Your task to perform on an android device: When is my next meeting? Image 0: 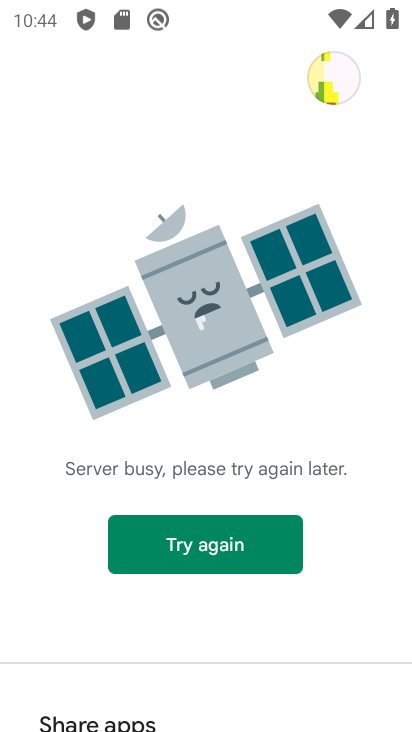
Step 0: press home button
Your task to perform on an android device: When is my next meeting? Image 1: 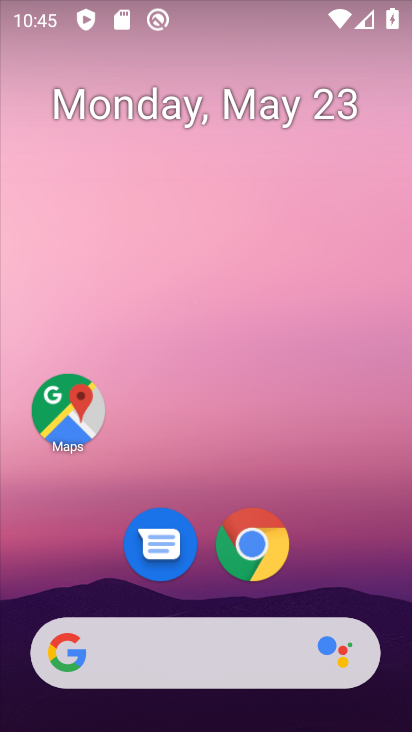
Step 1: drag from (374, 523) to (330, 276)
Your task to perform on an android device: When is my next meeting? Image 2: 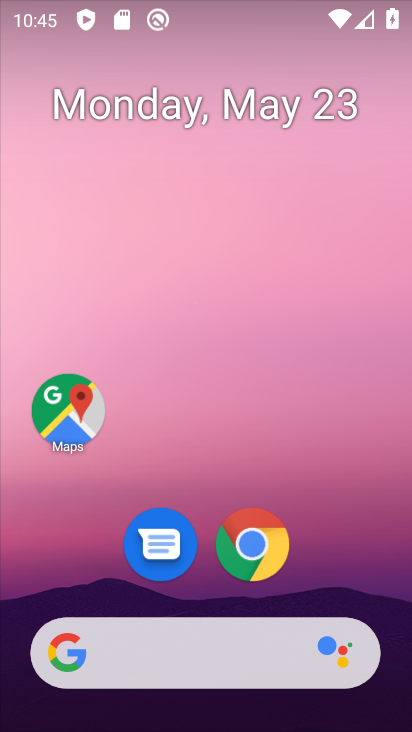
Step 2: drag from (387, 604) to (330, 222)
Your task to perform on an android device: When is my next meeting? Image 3: 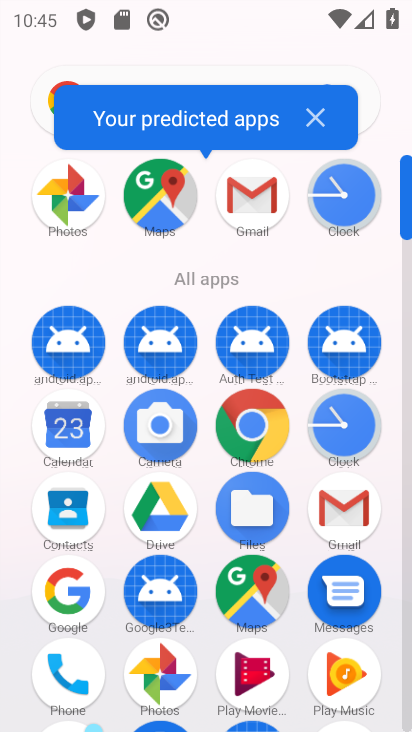
Step 3: click (404, 703)
Your task to perform on an android device: When is my next meeting? Image 4: 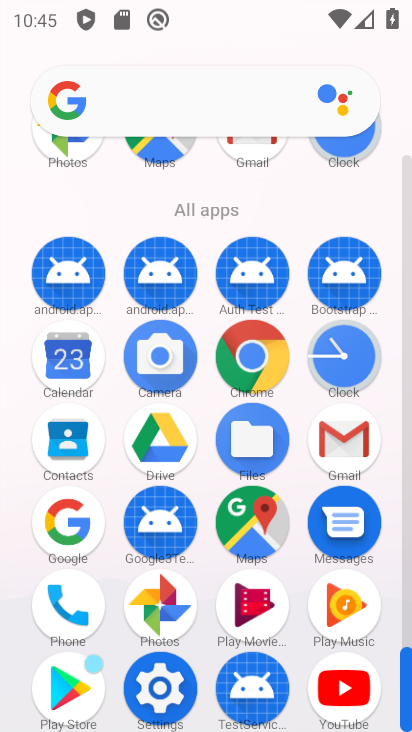
Step 4: click (65, 357)
Your task to perform on an android device: When is my next meeting? Image 5: 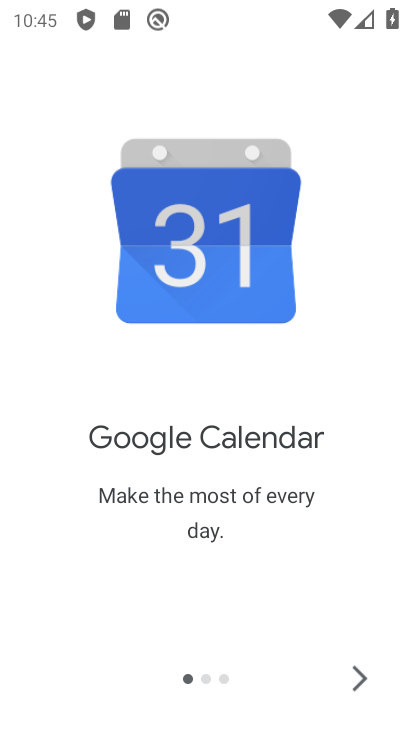
Step 5: click (358, 677)
Your task to perform on an android device: When is my next meeting? Image 6: 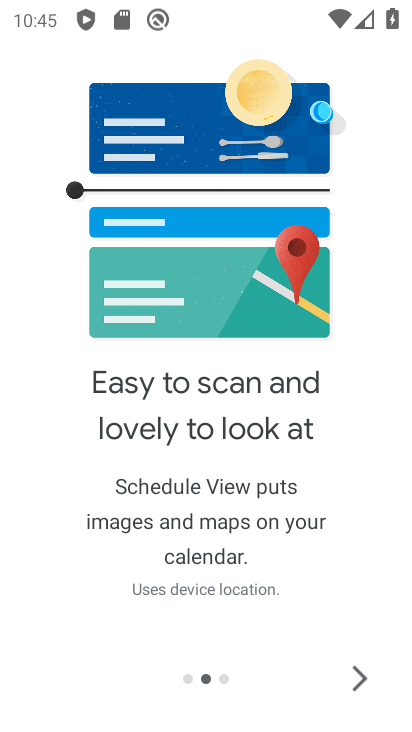
Step 6: click (354, 674)
Your task to perform on an android device: When is my next meeting? Image 7: 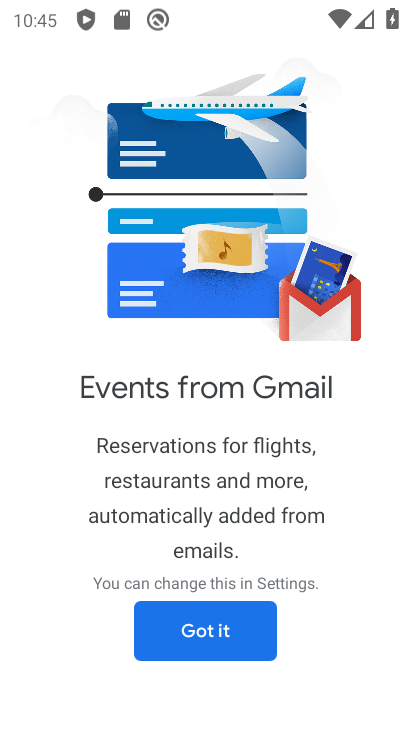
Step 7: click (194, 630)
Your task to perform on an android device: When is my next meeting? Image 8: 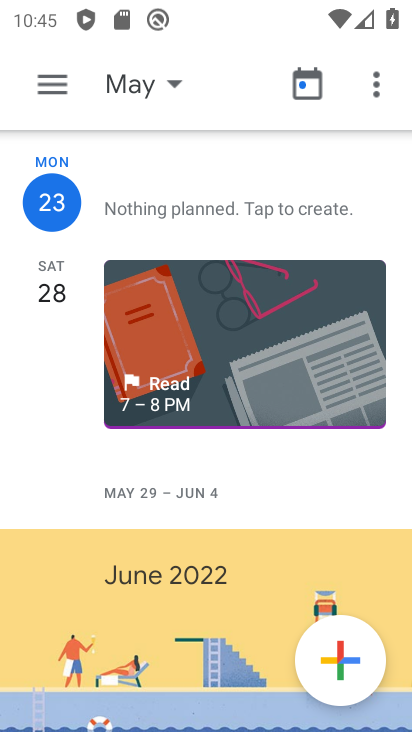
Step 8: click (48, 76)
Your task to perform on an android device: When is my next meeting? Image 9: 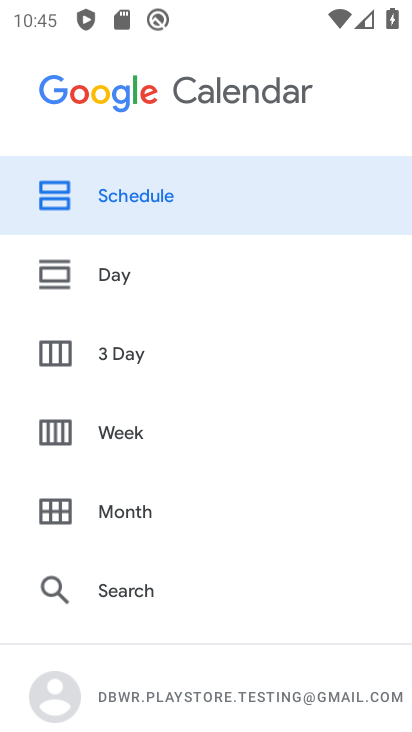
Step 9: click (133, 200)
Your task to perform on an android device: When is my next meeting? Image 10: 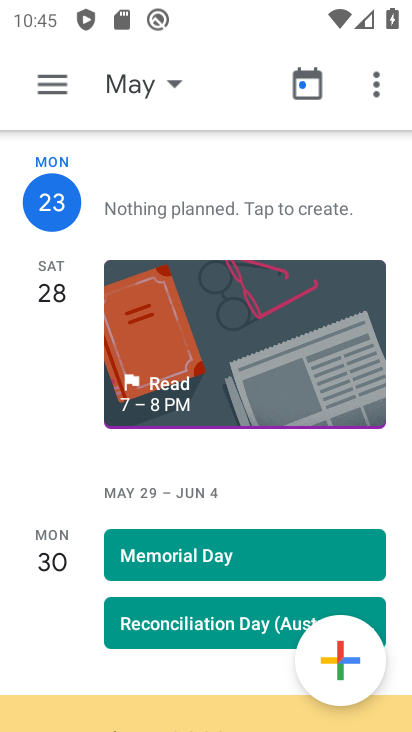
Step 10: task complete